Your task to perform on an android device: turn smart compose on in the gmail app Image 0: 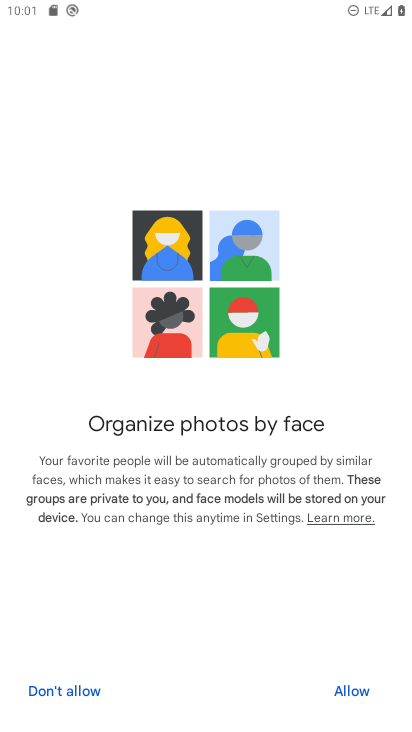
Step 0: press home button
Your task to perform on an android device: turn smart compose on in the gmail app Image 1: 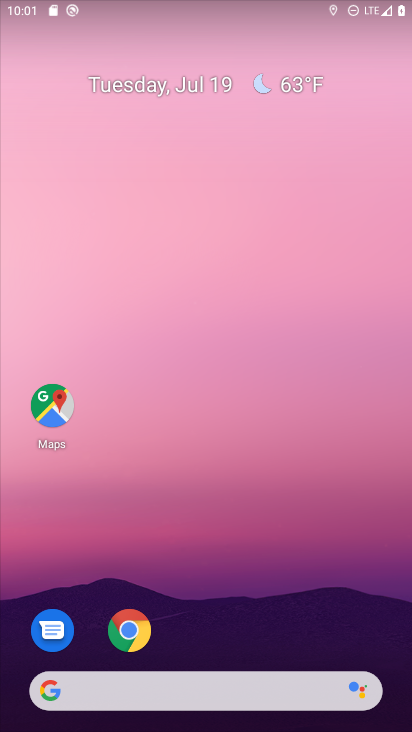
Step 1: drag from (195, 698) to (146, 229)
Your task to perform on an android device: turn smart compose on in the gmail app Image 2: 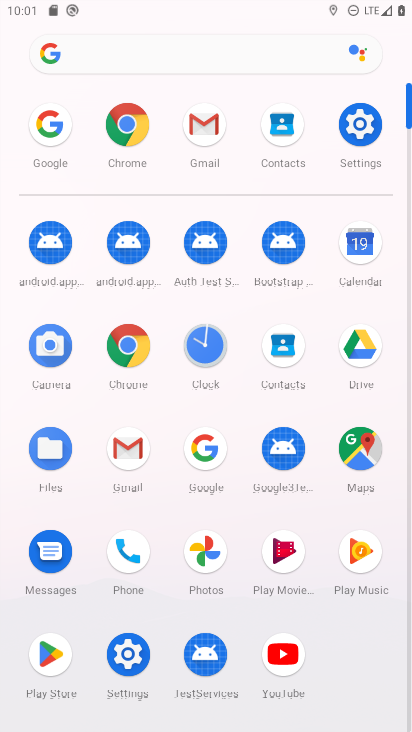
Step 2: click (128, 449)
Your task to perform on an android device: turn smart compose on in the gmail app Image 3: 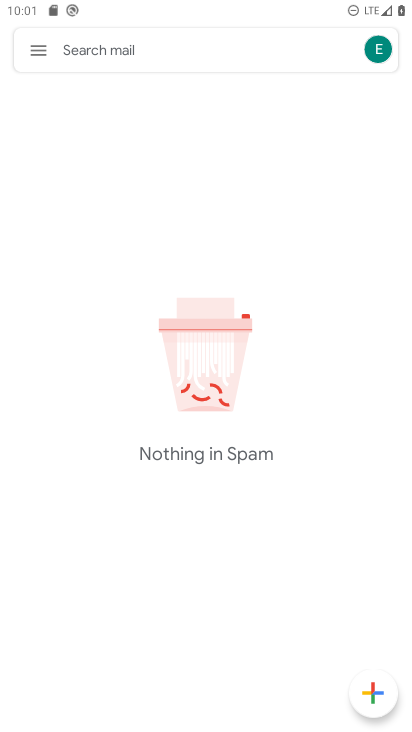
Step 3: click (39, 48)
Your task to perform on an android device: turn smart compose on in the gmail app Image 4: 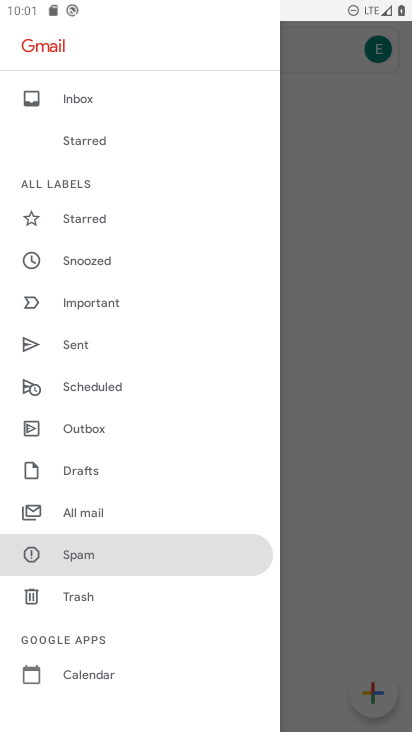
Step 4: drag from (103, 587) to (114, 344)
Your task to perform on an android device: turn smart compose on in the gmail app Image 5: 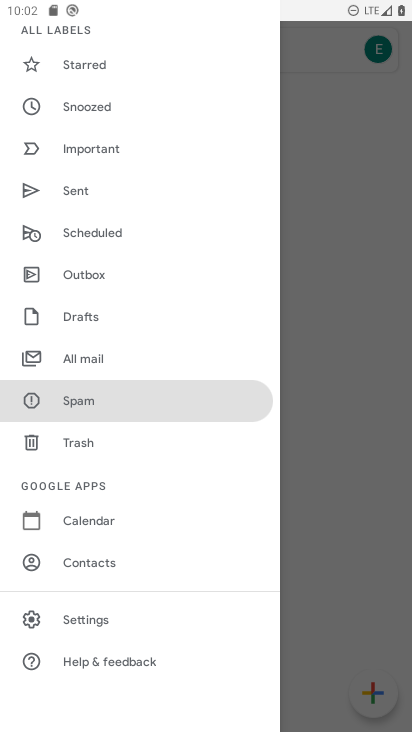
Step 5: click (103, 615)
Your task to perform on an android device: turn smart compose on in the gmail app Image 6: 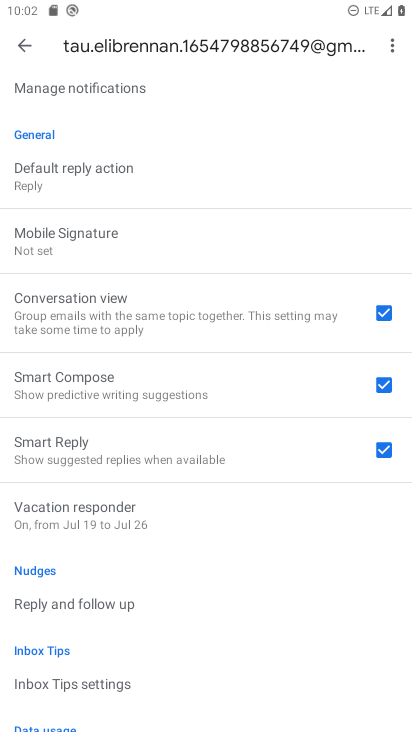
Step 6: task complete